Your task to perform on an android device: Open the calendar app, open the side menu, and click the "Day" option Image 0: 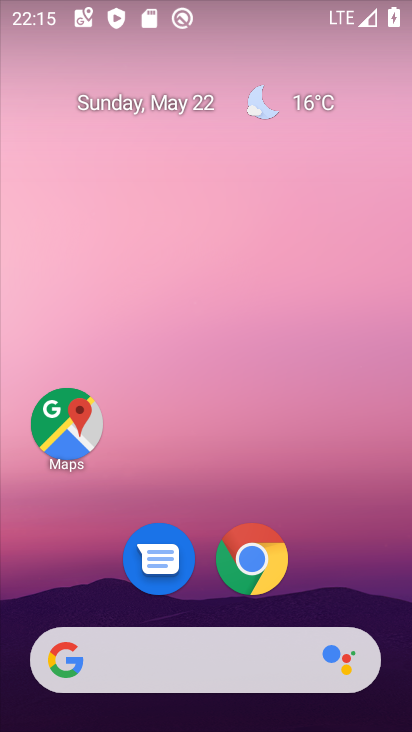
Step 0: drag from (301, 695) to (387, 284)
Your task to perform on an android device: Open the calendar app, open the side menu, and click the "Day" option Image 1: 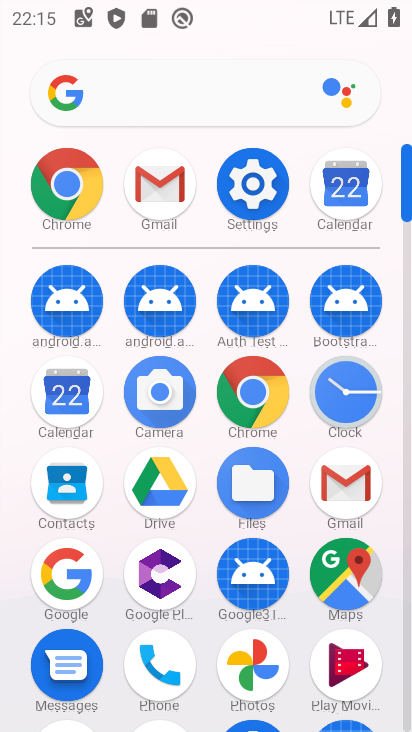
Step 1: click (68, 390)
Your task to perform on an android device: Open the calendar app, open the side menu, and click the "Day" option Image 2: 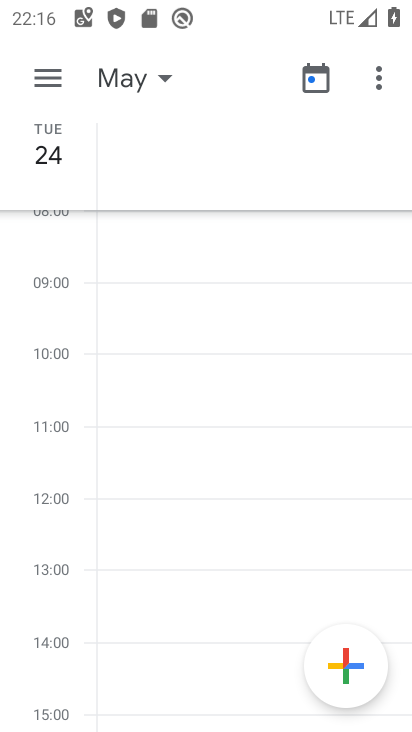
Step 2: click (45, 89)
Your task to perform on an android device: Open the calendar app, open the side menu, and click the "Day" option Image 3: 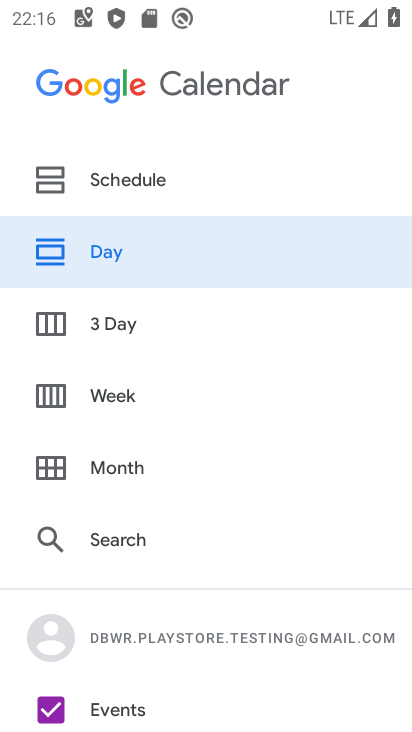
Step 3: click (132, 254)
Your task to perform on an android device: Open the calendar app, open the side menu, and click the "Day" option Image 4: 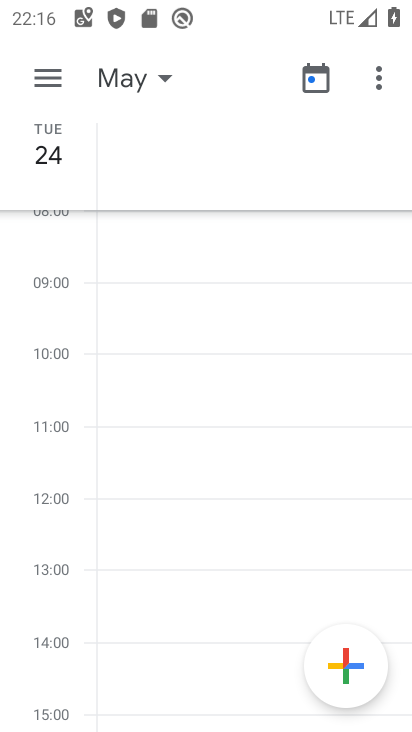
Step 4: task complete